Your task to perform on an android device: add a label to a message in the gmail app Image 0: 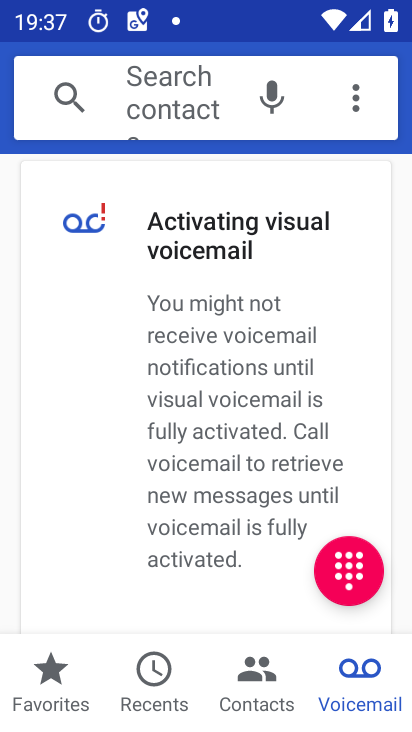
Step 0: press home button
Your task to perform on an android device: add a label to a message in the gmail app Image 1: 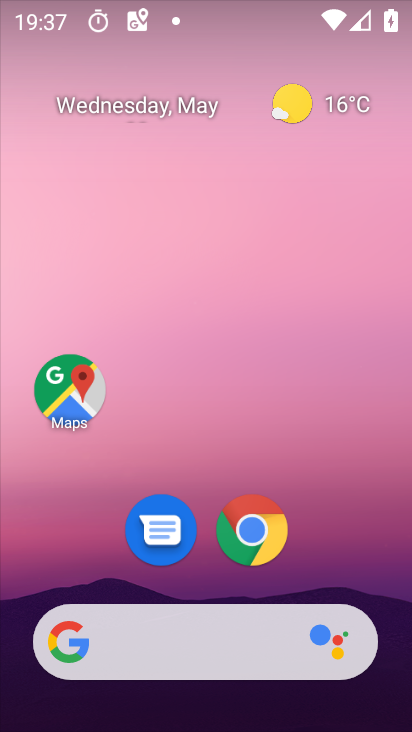
Step 1: drag from (182, 586) to (216, 213)
Your task to perform on an android device: add a label to a message in the gmail app Image 2: 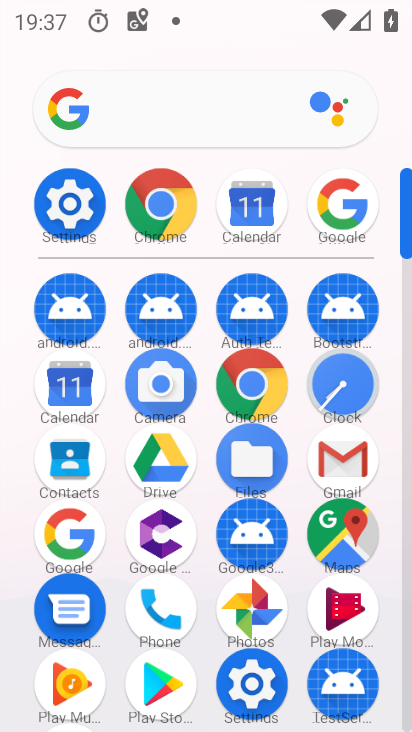
Step 2: click (339, 467)
Your task to perform on an android device: add a label to a message in the gmail app Image 3: 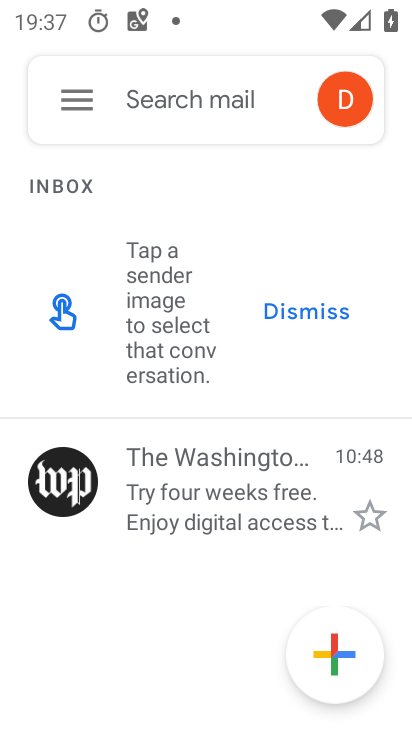
Step 3: click (153, 478)
Your task to perform on an android device: add a label to a message in the gmail app Image 4: 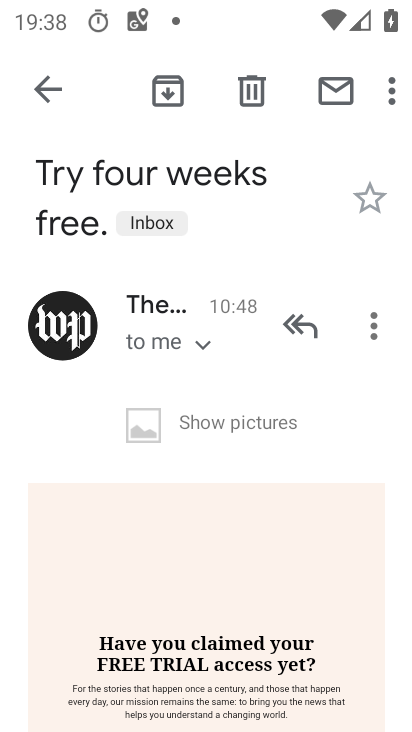
Step 4: click (393, 99)
Your task to perform on an android device: add a label to a message in the gmail app Image 5: 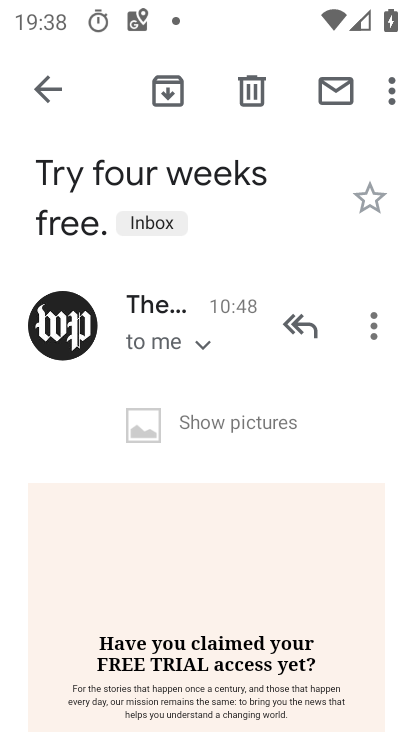
Step 5: click (392, 92)
Your task to perform on an android device: add a label to a message in the gmail app Image 6: 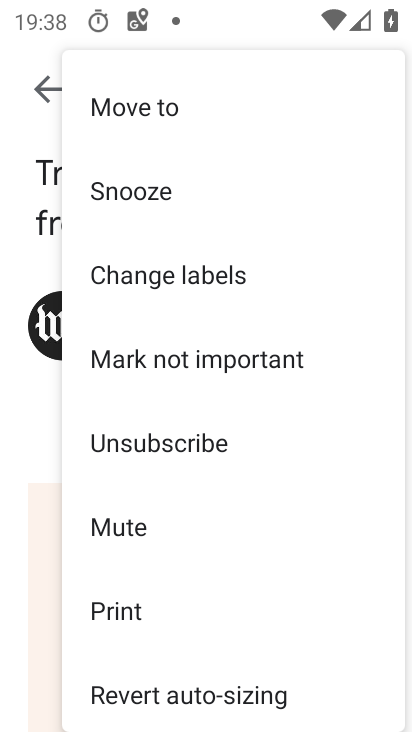
Step 6: click (153, 274)
Your task to perform on an android device: add a label to a message in the gmail app Image 7: 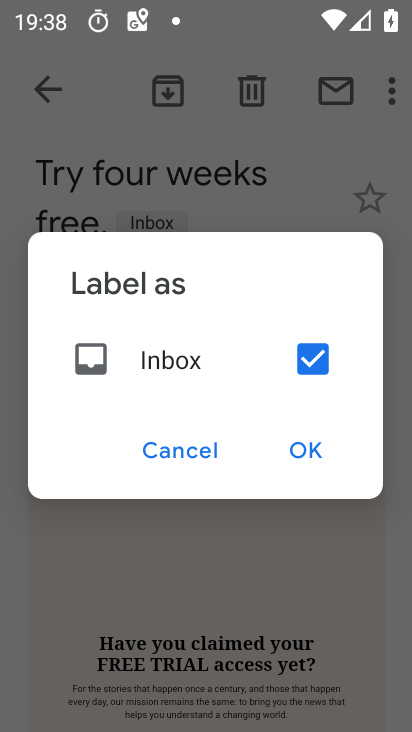
Step 7: click (315, 460)
Your task to perform on an android device: add a label to a message in the gmail app Image 8: 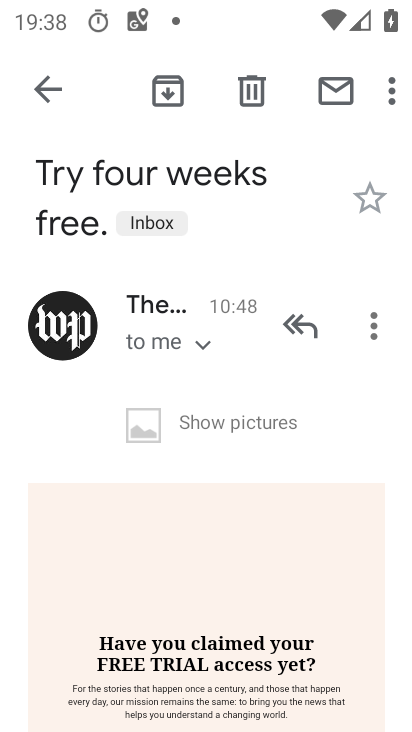
Step 8: task complete